Your task to perform on an android device: Do I have any events this weekend? Image 0: 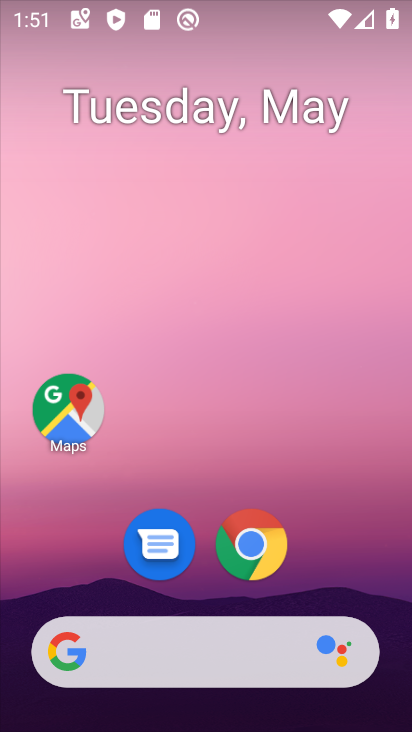
Step 0: drag from (315, 567) to (319, 160)
Your task to perform on an android device: Do I have any events this weekend? Image 1: 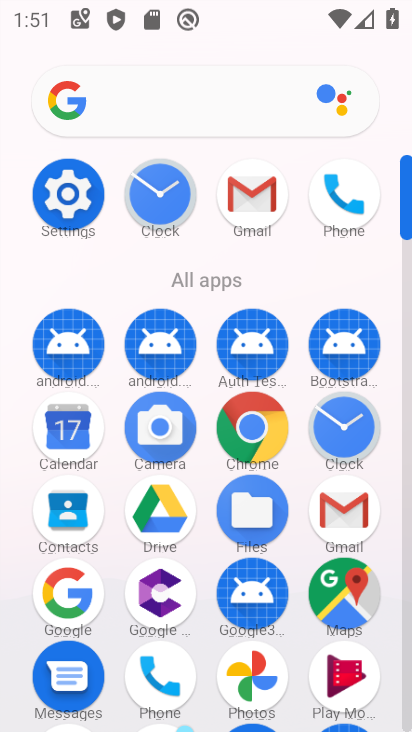
Step 1: click (80, 430)
Your task to perform on an android device: Do I have any events this weekend? Image 2: 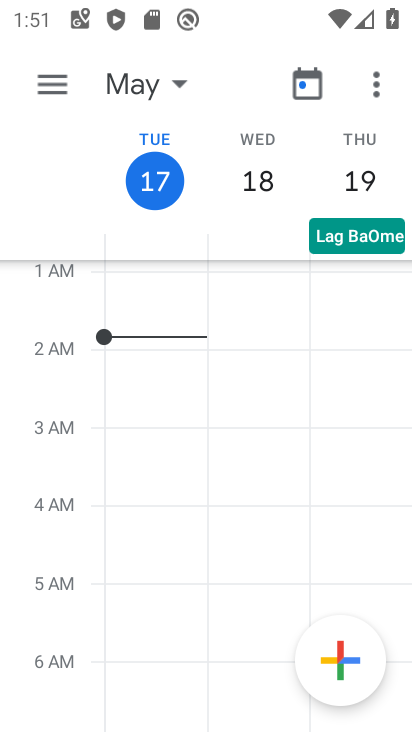
Step 2: task complete